Your task to perform on an android device: turn off javascript in the chrome app Image 0: 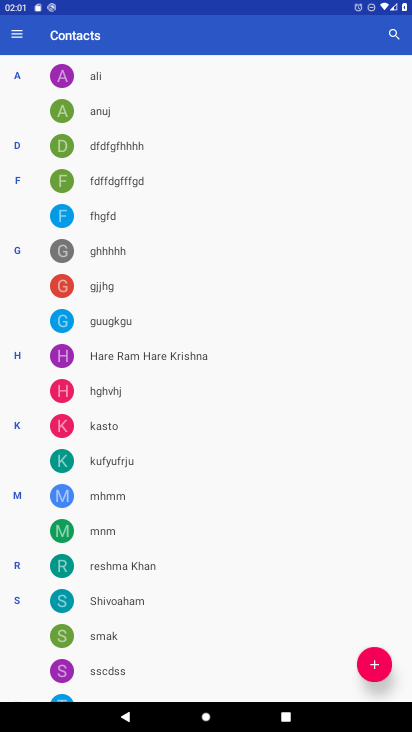
Step 0: press home button
Your task to perform on an android device: turn off javascript in the chrome app Image 1: 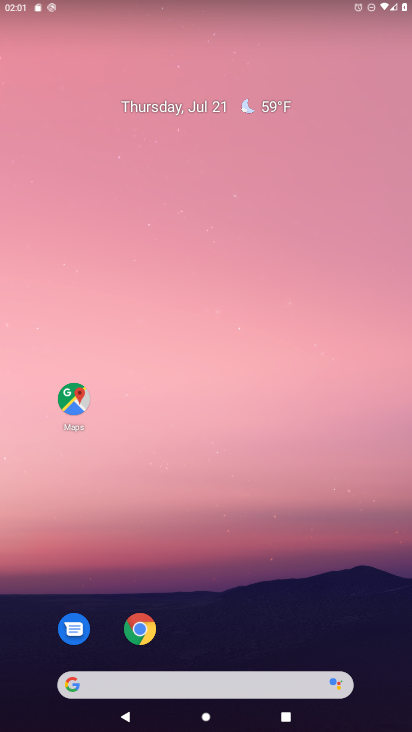
Step 1: click (140, 628)
Your task to perform on an android device: turn off javascript in the chrome app Image 2: 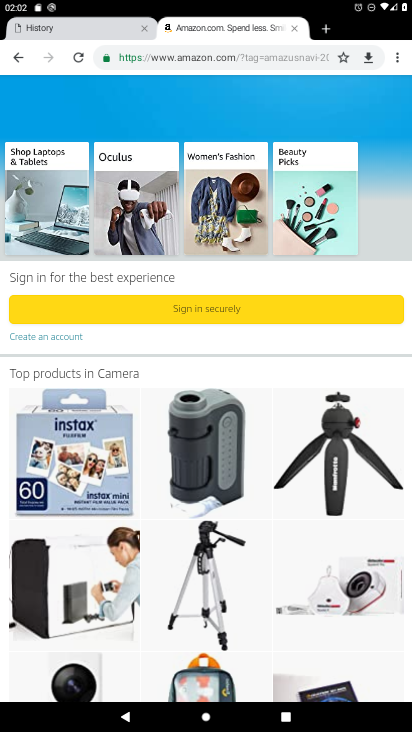
Step 2: click (397, 62)
Your task to perform on an android device: turn off javascript in the chrome app Image 3: 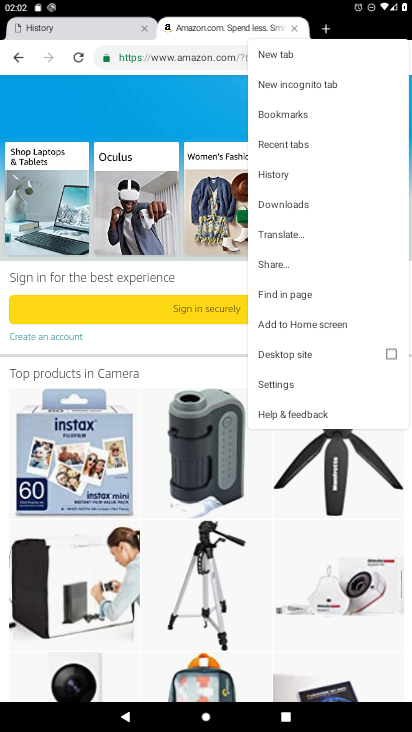
Step 3: click (278, 386)
Your task to perform on an android device: turn off javascript in the chrome app Image 4: 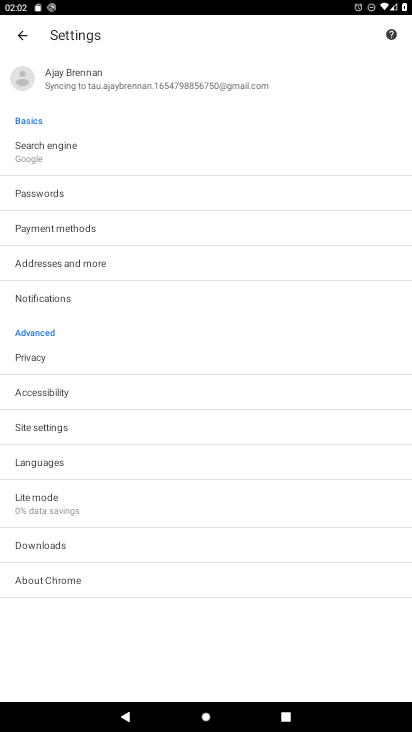
Step 4: click (41, 435)
Your task to perform on an android device: turn off javascript in the chrome app Image 5: 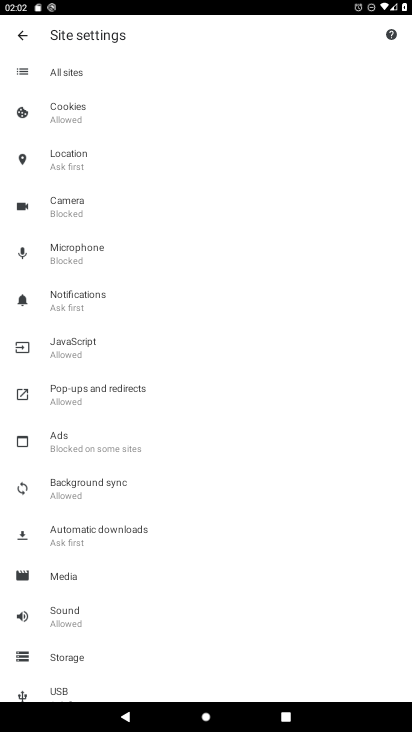
Step 5: click (60, 340)
Your task to perform on an android device: turn off javascript in the chrome app Image 6: 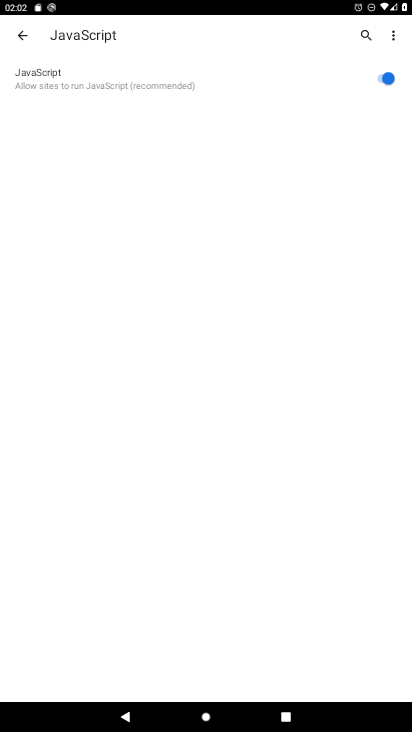
Step 6: click (375, 73)
Your task to perform on an android device: turn off javascript in the chrome app Image 7: 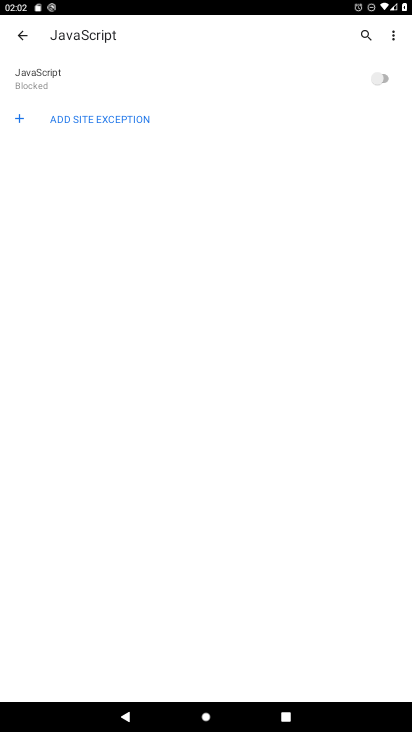
Step 7: task complete